Your task to perform on an android device: Show me popular videos on Youtube Image 0: 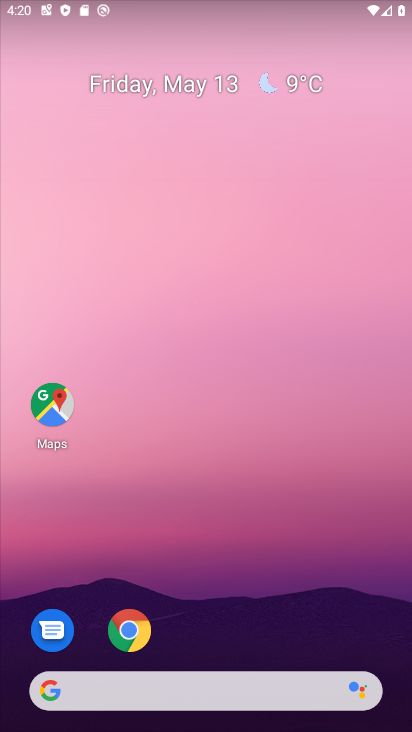
Step 0: drag from (271, 542) to (257, 70)
Your task to perform on an android device: Show me popular videos on Youtube Image 1: 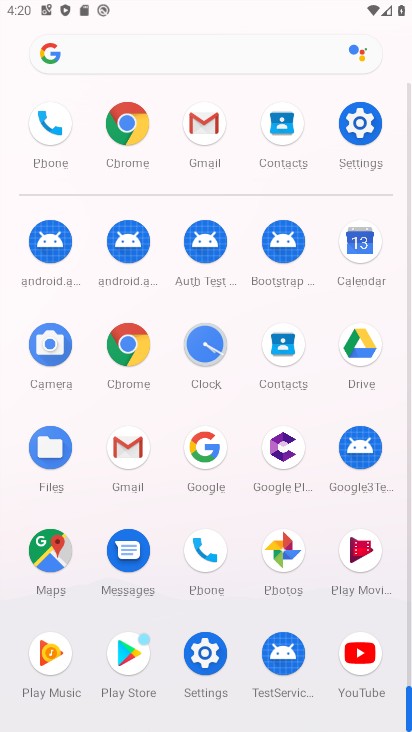
Step 1: drag from (14, 536) to (14, 221)
Your task to perform on an android device: Show me popular videos on Youtube Image 2: 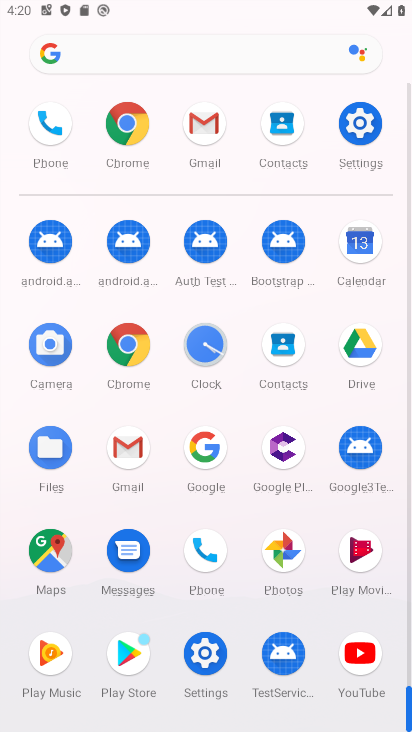
Step 2: click (357, 658)
Your task to perform on an android device: Show me popular videos on Youtube Image 3: 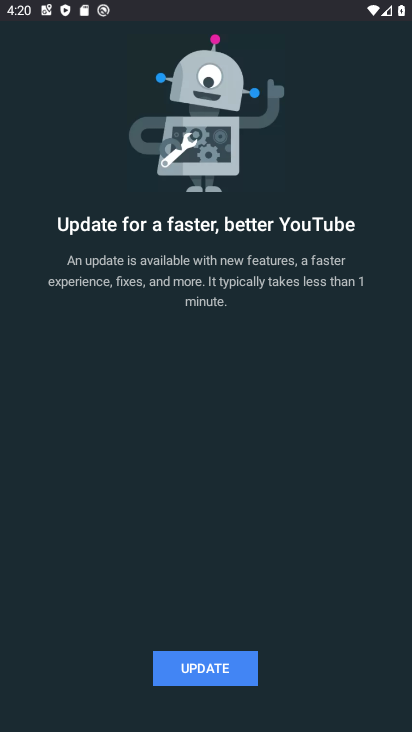
Step 3: click (216, 672)
Your task to perform on an android device: Show me popular videos on Youtube Image 4: 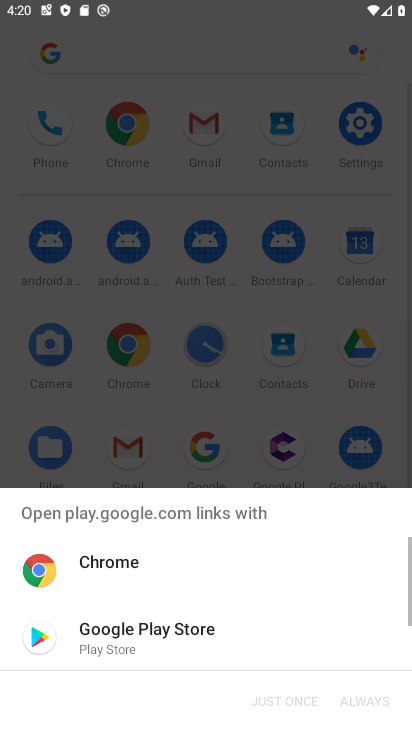
Step 4: click (179, 629)
Your task to perform on an android device: Show me popular videos on Youtube Image 5: 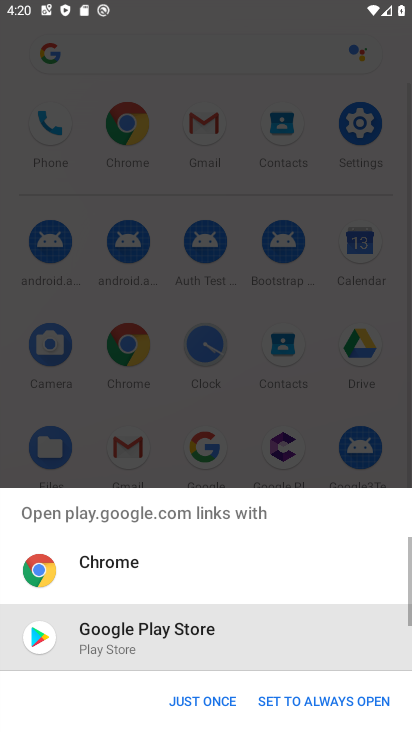
Step 5: click (174, 693)
Your task to perform on an android device: Show me popular videos on Youtube Image 6: 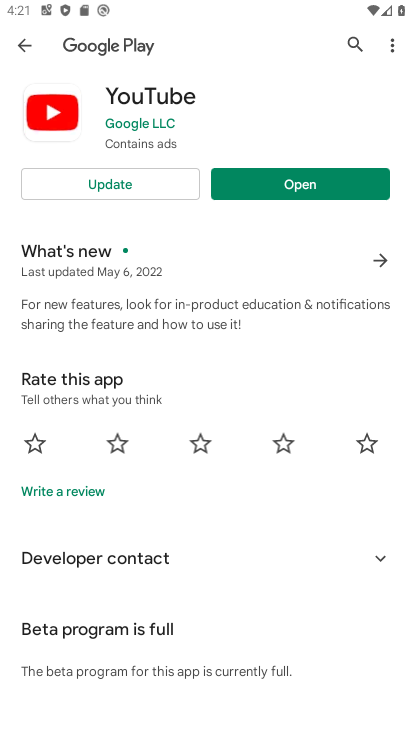
Step 6: click (154, 178)
Your task to perform on an android device: Show me popular videos on Youtube Image 7: 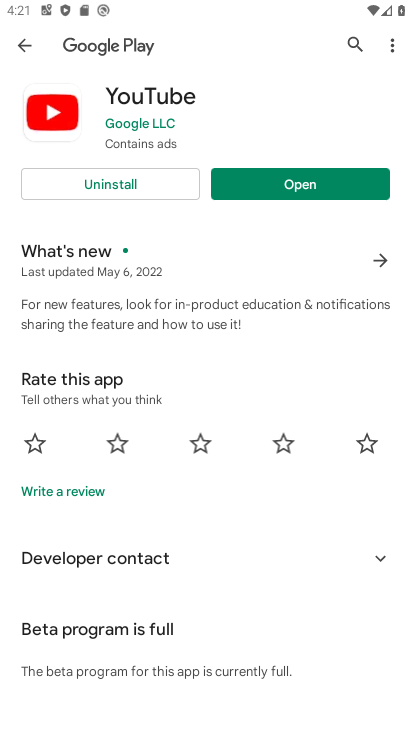
Step 7: click (279, 173)
Your task to perform on an android device: Show me popular videos on Youtube Image 8: 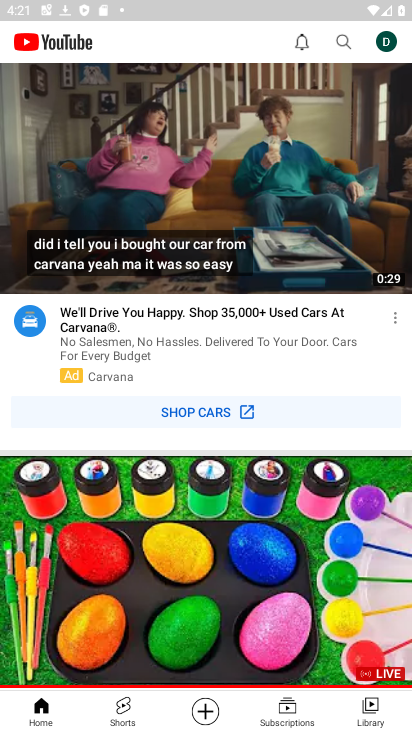
Step 8: drag from (97, 176) to (110, 399)
Your task to perform on an android device: Show me popular videos on Youtube Image 9: 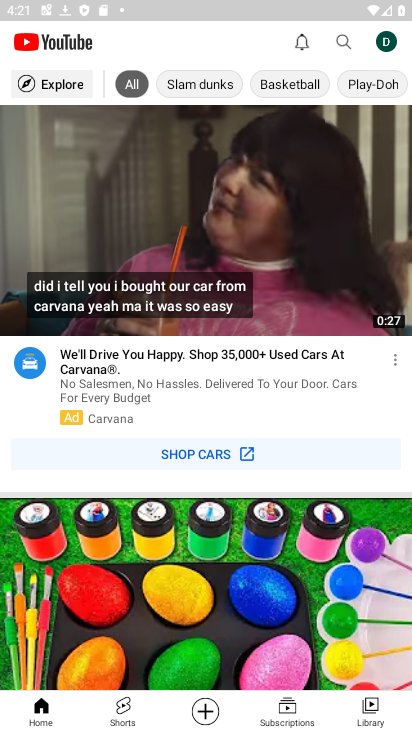
Step 9: click (65, 87)
Your task to perform on an android device: Show me popular videos on Youtube Image 10: 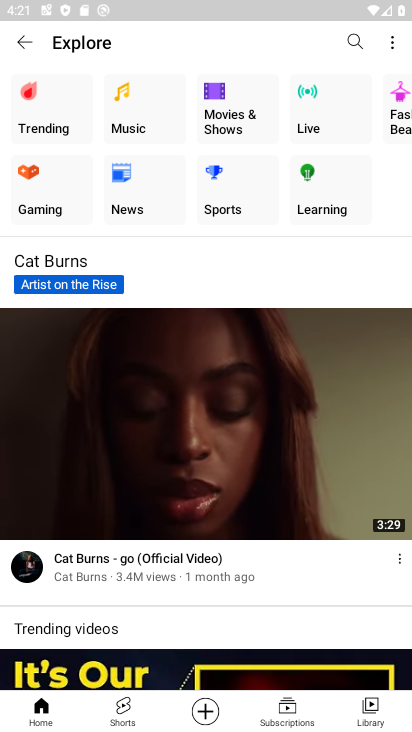
Step 10: click (46, 107)
Your task to perform on an android device: Show me popular videos on Youtube Image 11: 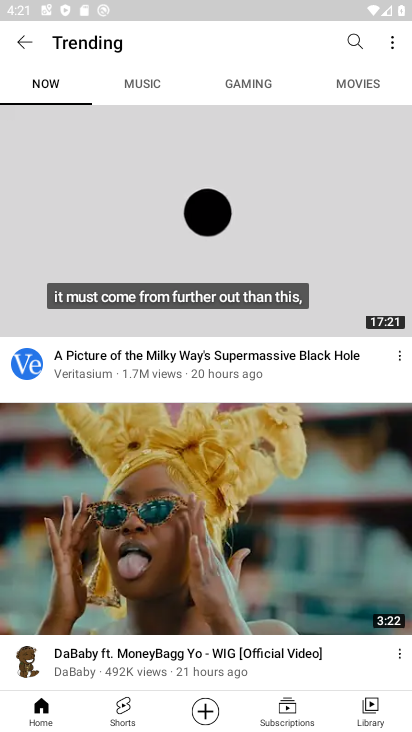
Step 11: task complete